Your task to perform on an android device: See recent photos Image 0: 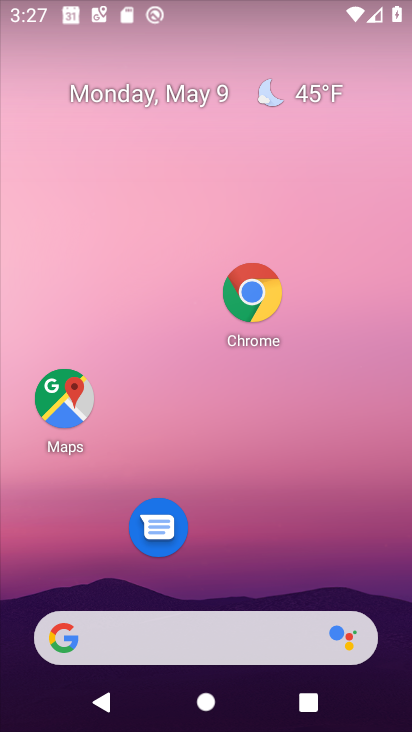
Step 0: drag from (223, 517) to (244, 105)
Your task to perform on an android device: See recent photos Image 1: 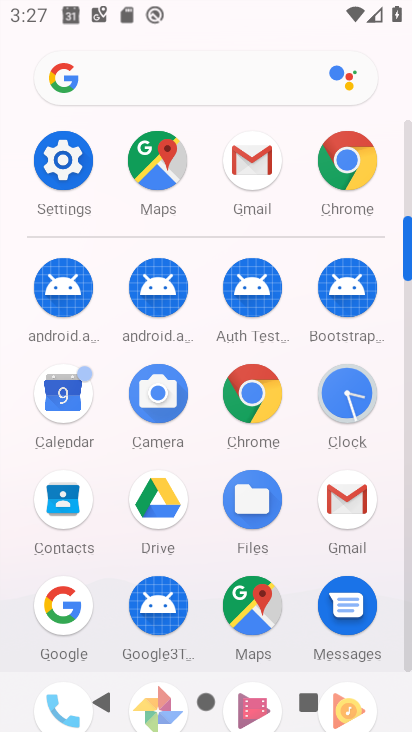
Step 1: drag from (175, 398) to (207, 212)
Your task to perform on an android device: See recent photos Image 2: 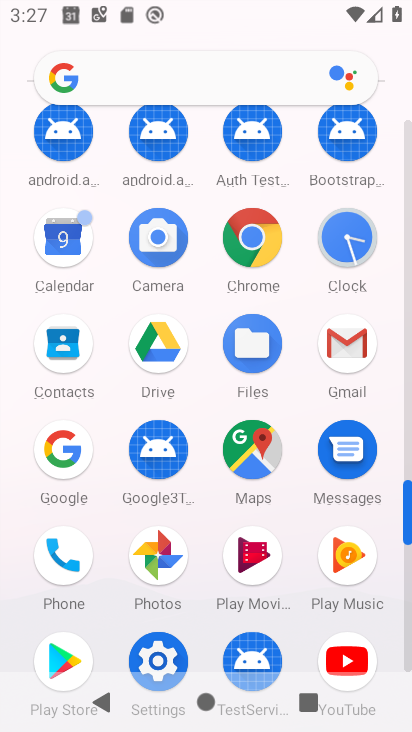
Step 2: click (151, 560)
Your task to perform on an android device: See recent photos Image 3: 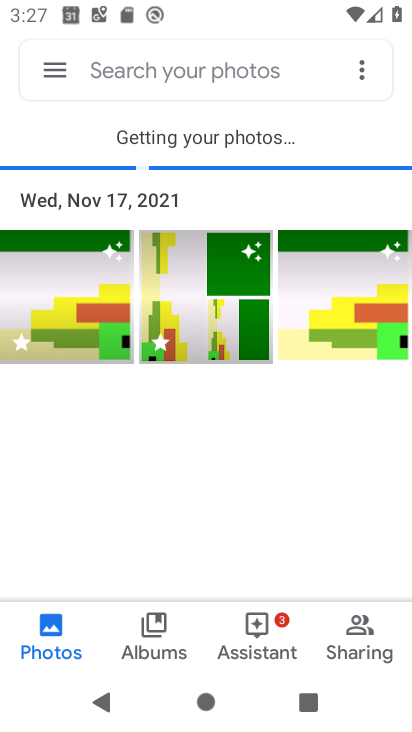
Step 3: task complete